Your task to perform on an android device: Play the last video I watched on Youtube Image 0: 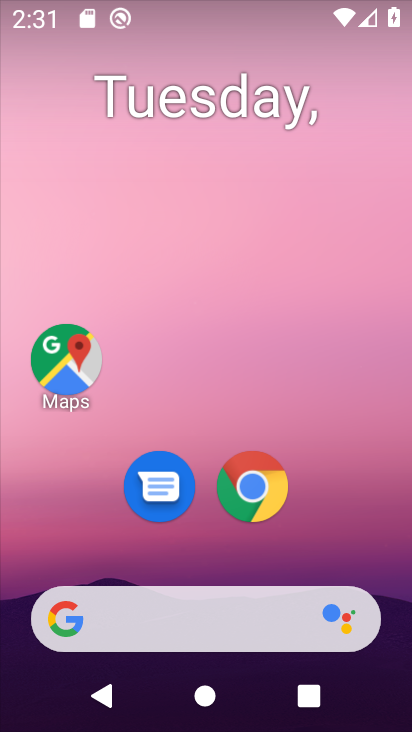
Step 0: press home button
Your task to perform on an android device: Play the last video I watched on Youtube Image 1: 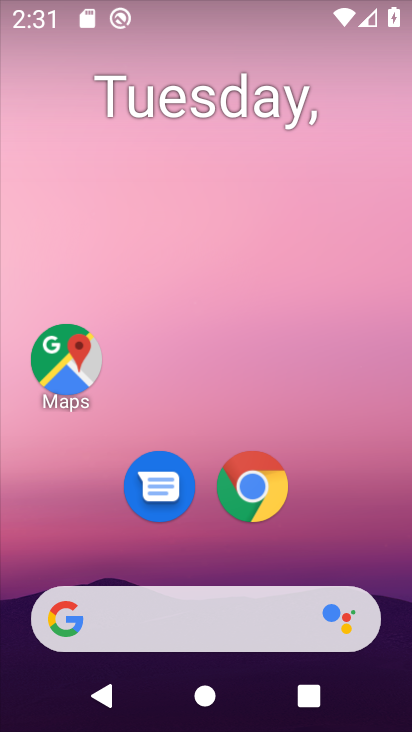
Step 1: drag from (208, 567) to (202, 76)
Your task to perform on an android device: Play the last video I watched on Youtube Image 2: 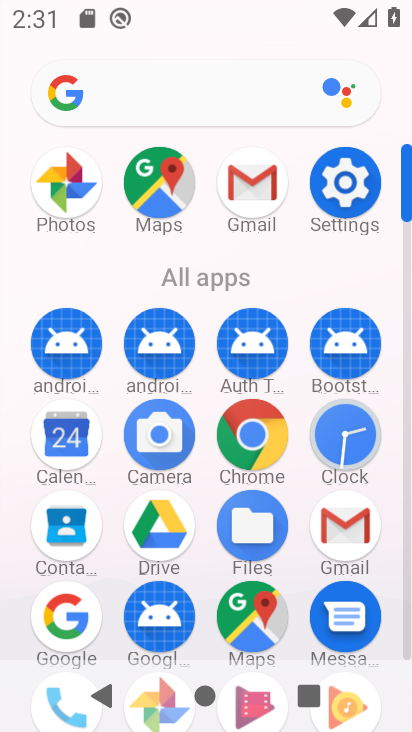
Step 2: drag from (296, 583) to (309, 83)
Your task to perform on an android device: Play the last video I watched on Youtube Image 3: 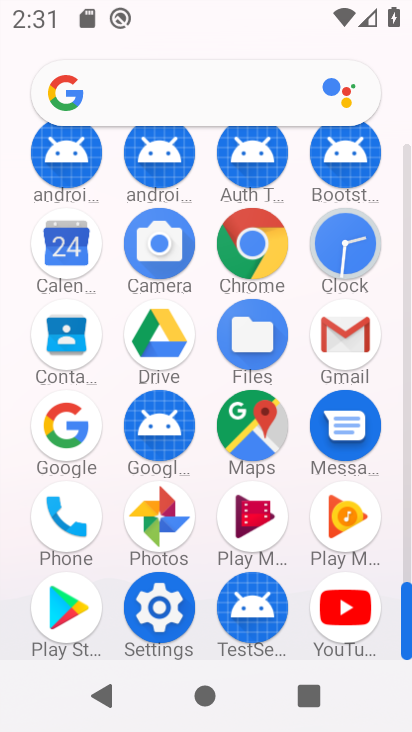
Step 3: click (341, 601)
Your task to perform on an android device: Play the last video I watched on Youtube Image 4: 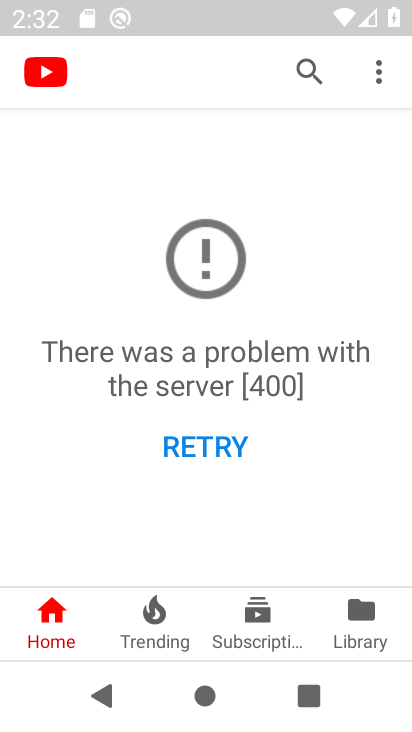
Step 4: click (360, 612)
Your task to perform on an android device: Play the last video I watched on Youtube Image 5: 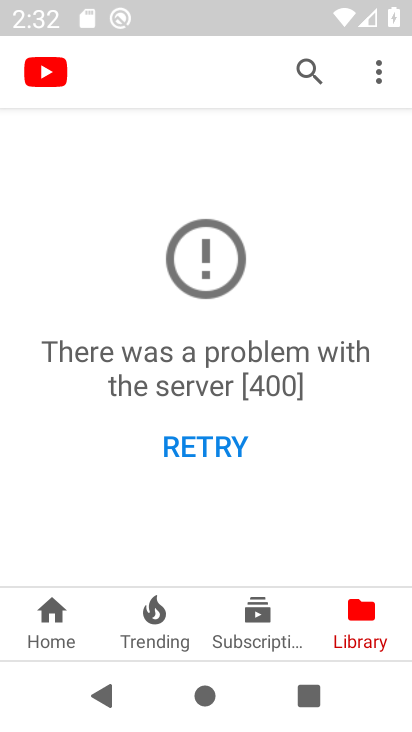
Step 5: task complete